Your task to perform on an android device: Search for vegetarian restaurants on Maps Image 0: 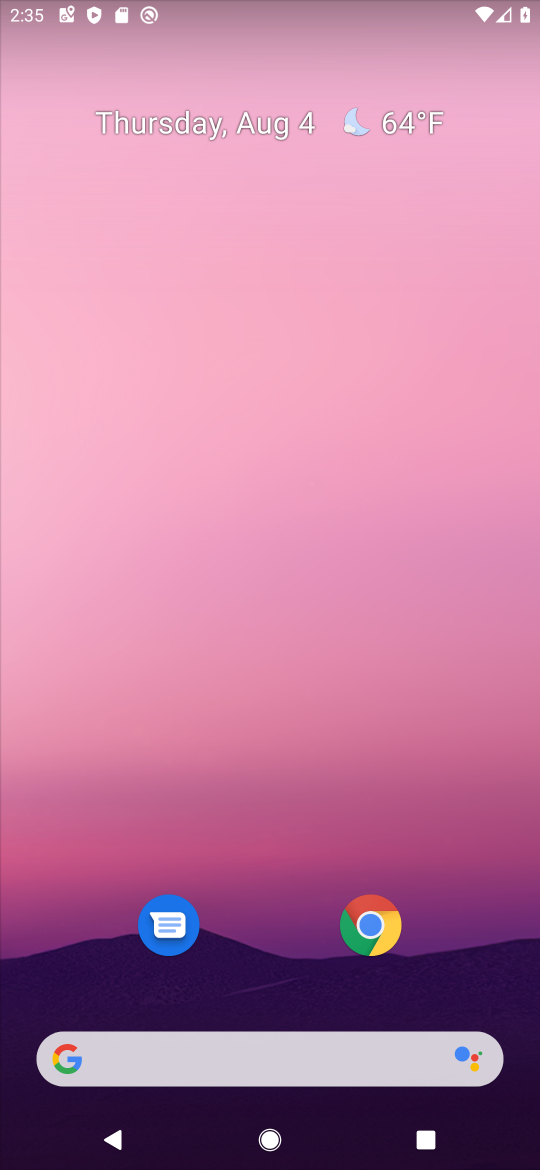
Step 0: drag from (264, 930) to (205, 74)
Your task to perform on an android device: Search for vegetarian restaurants on Maps Image 1: 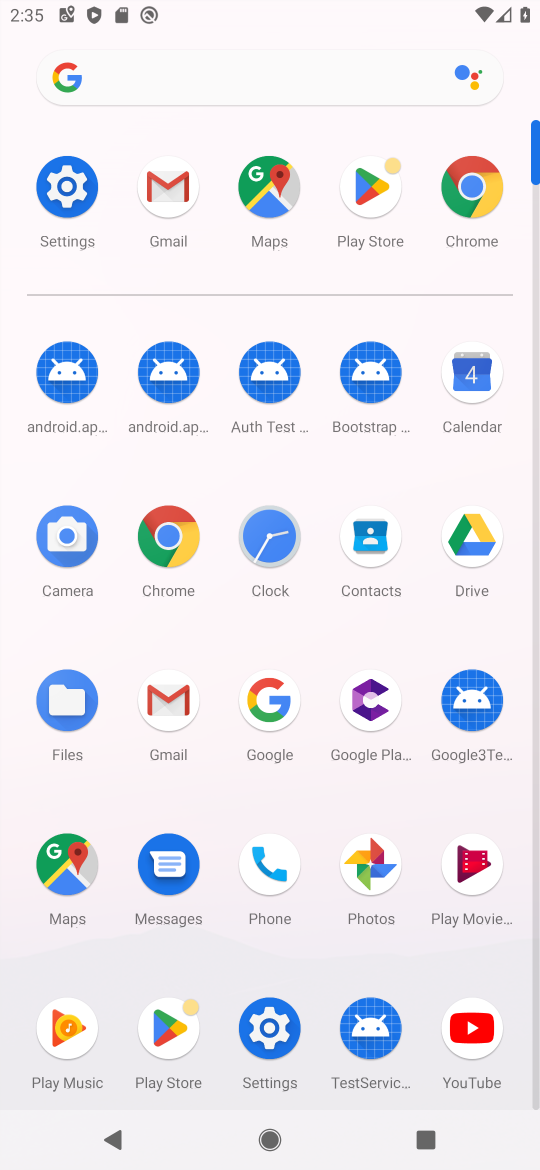
Step 1: click (262, 209)
Your task to perform on an android device: Search for vegetarian restaurants on Maps Image 2: 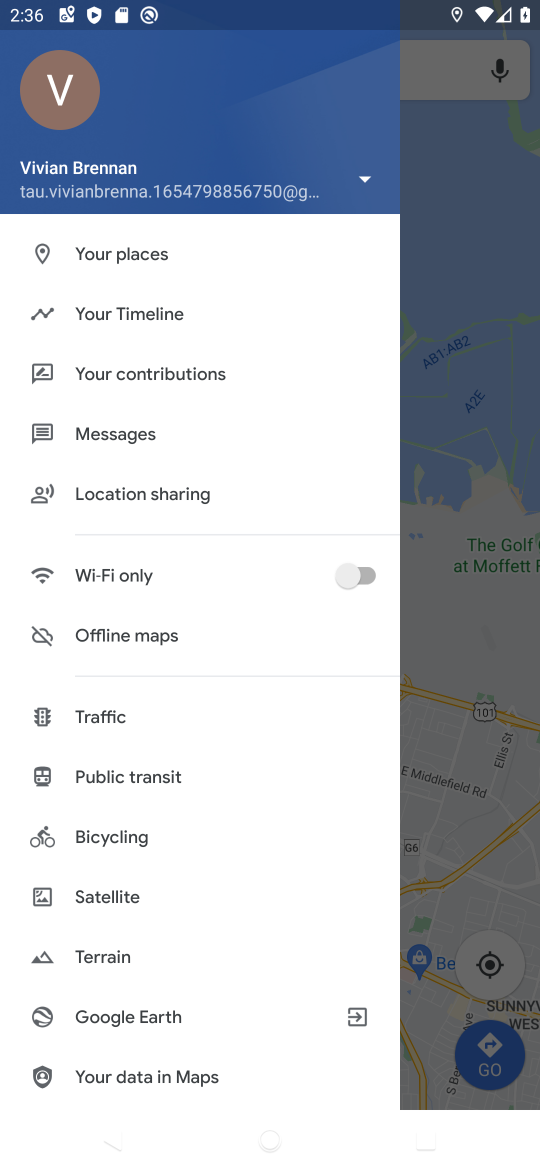
Step 2: click (509, 330)
Your task to perform on an android device: Search for vegetarian restaurants on Maps Image 3: 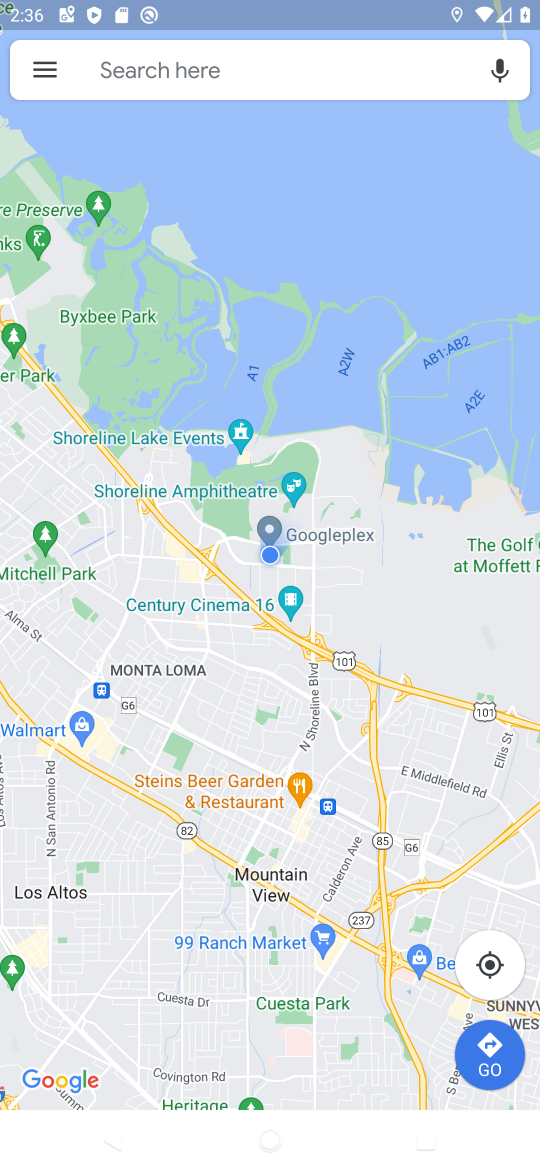
Step 3: click (413, 77)
Your task to perform on an android device: Search for vegetarian restaurants on Maps Image 4: 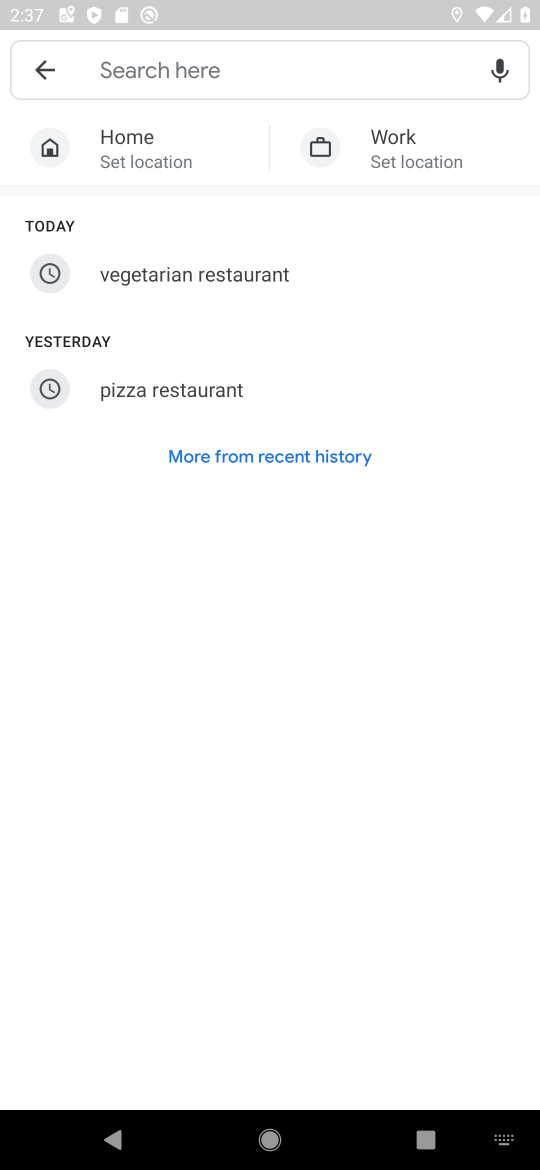
Step 4: click (166, 273)
Your task to perform on an android device: Search for vegetarian restaurants on Maps Image 5: 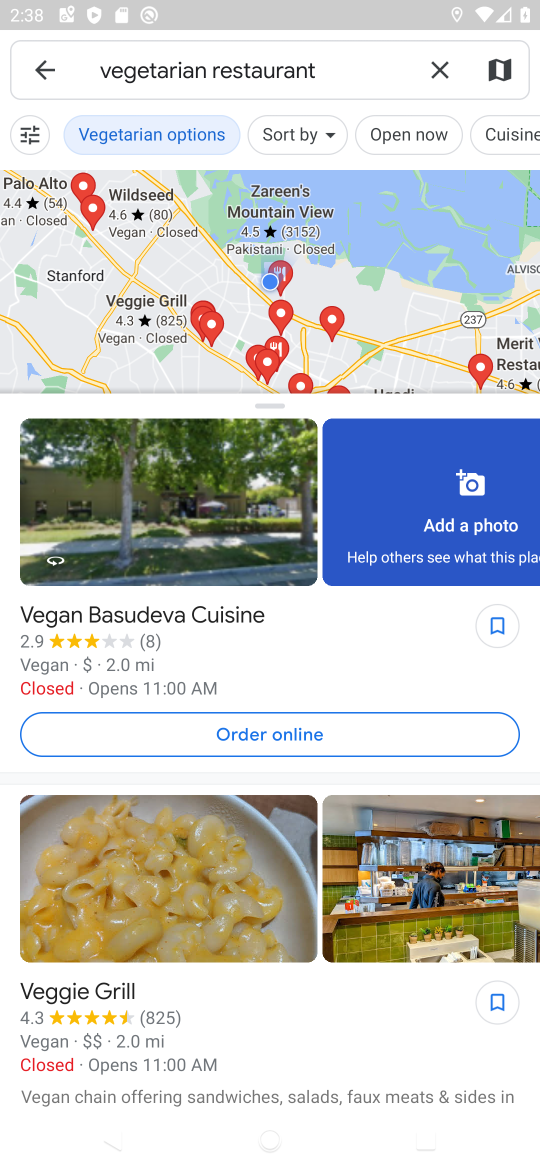
Step 5: task complete